Your task to perform on an android device: What is the speed of a jet? Image 0: 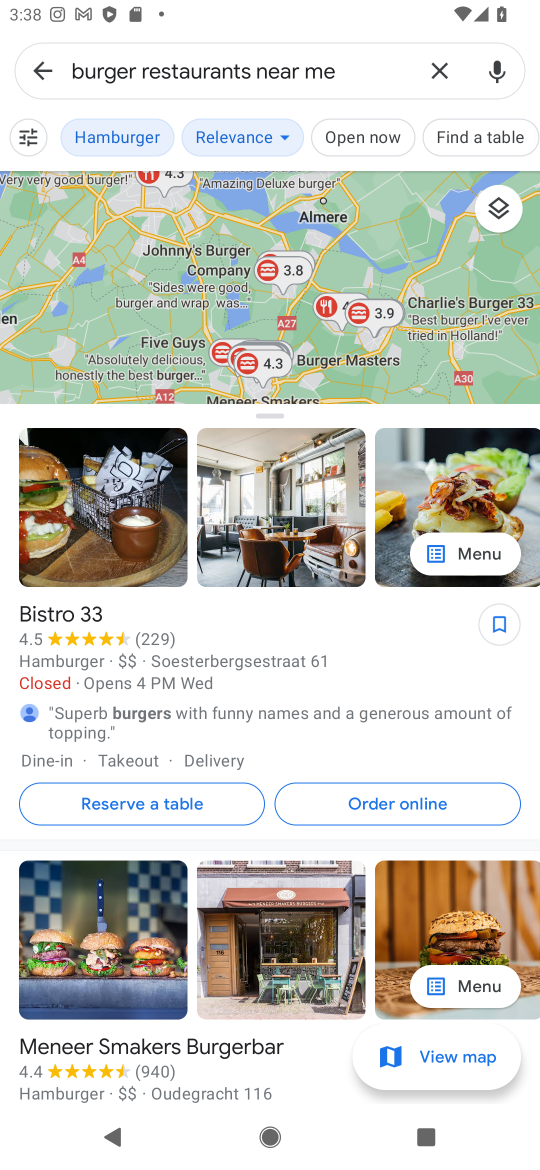
Step 0: press home button
Your task to perform on an android device: What is the speed of a jet? Image 1: 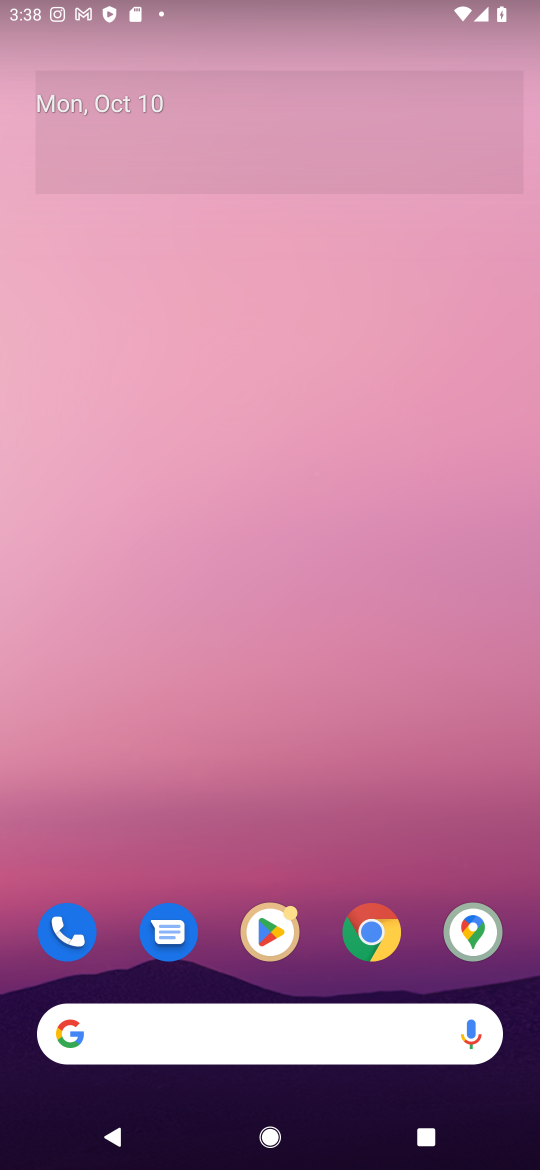
Step 1: click (212, 1042)
Your task to perform on an android device: What is the speed of a jet? Image 2: 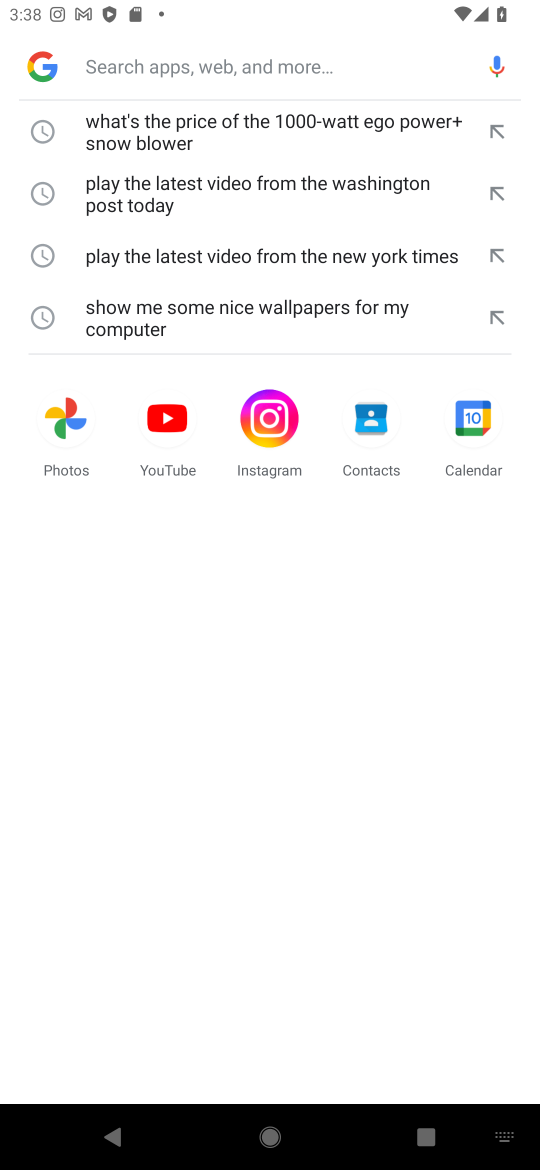
Step 2: type "What is the speed of a jet"
Your task to perform on an android device: What is the speed of a jet? Image 3: 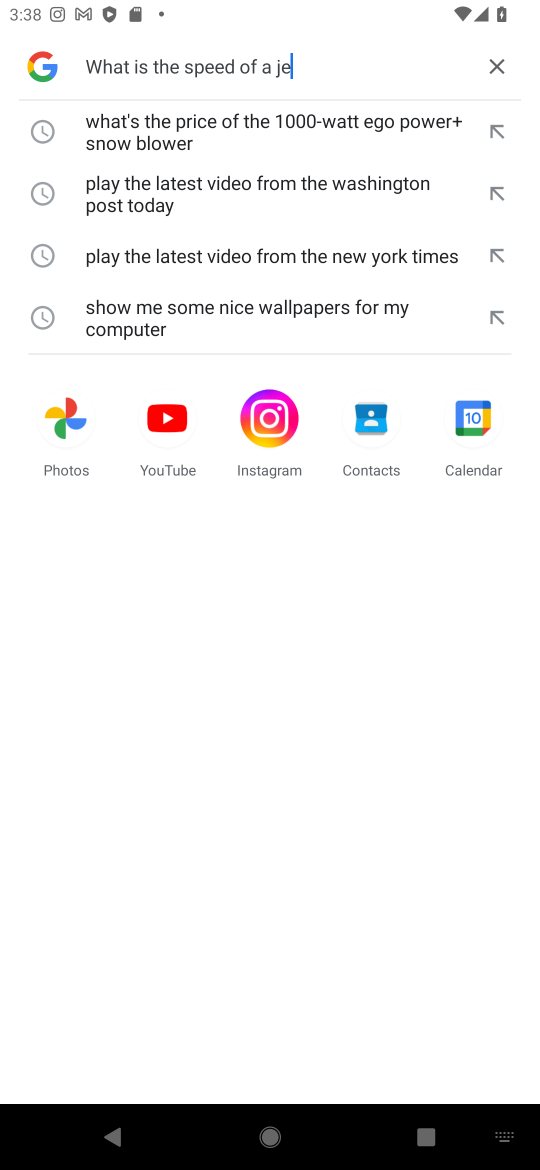
Step 3: press enter
Your task to perform on an android device: What is the speed of a jet? Image 4: 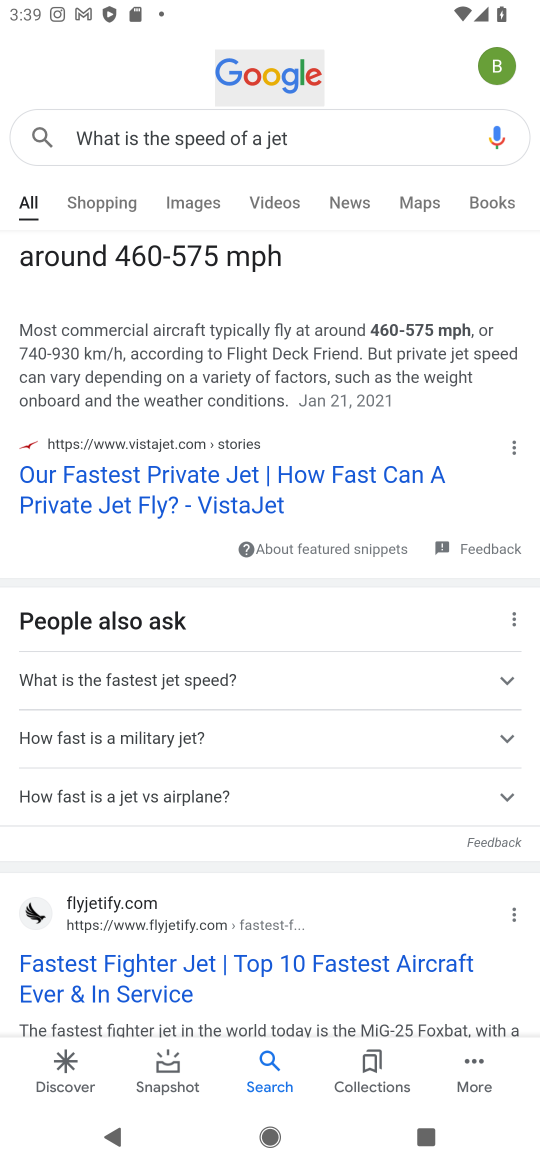
Step 4: task complete